Your task to perform on an android device: Go to Yahoo.com Image 0: 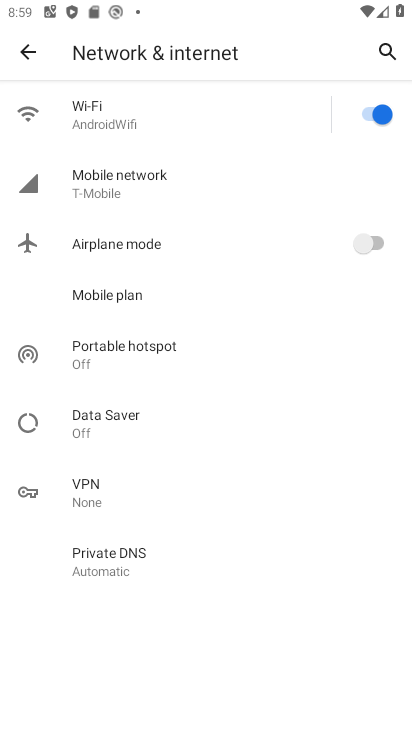
Step 0: press back button
Your task to perform on an android device: Go to Yahoo.com Image 1: 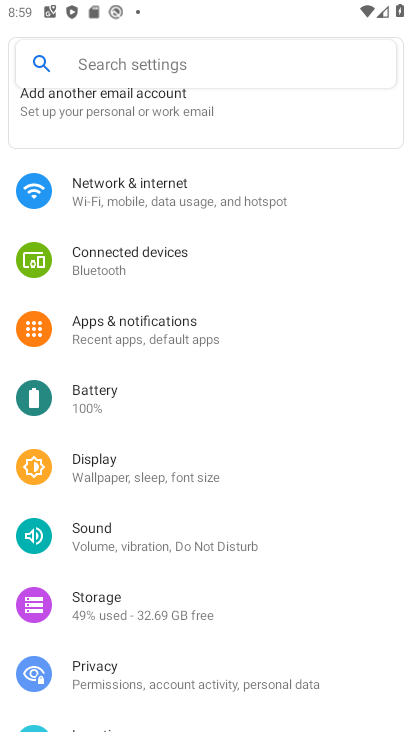
Step 1: press back button
Your task to perform on an android device: Go to Yahoo.com Image 2: 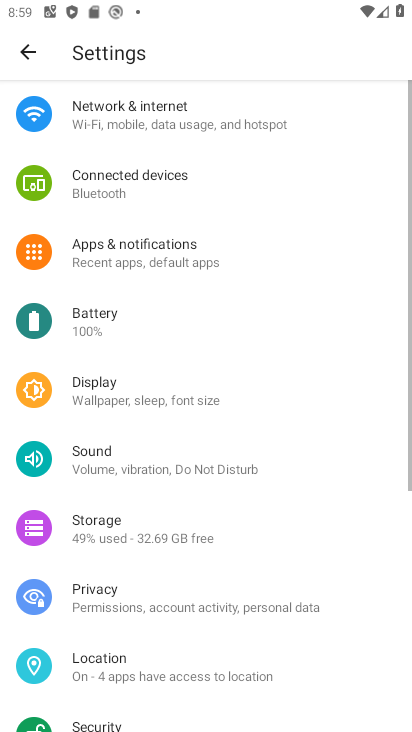
Step 2: press home button
Your task to perform on an android device: Go to Yahoo.com Image 3: 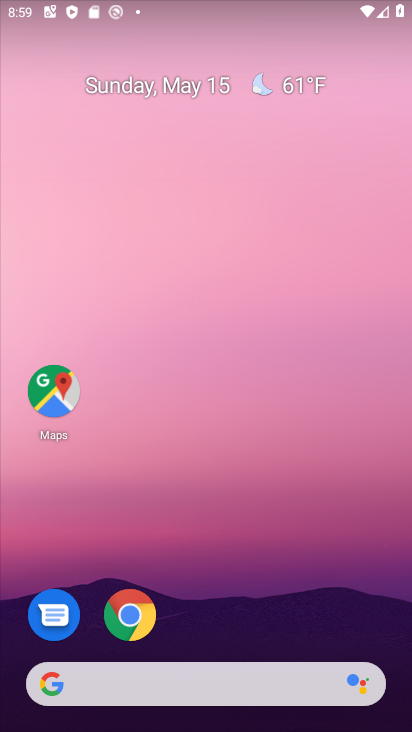
Step 3: drag from (252, 596) to (238, 0)
Your task to perform on an android device: Go to Yahoo.com Image 4: 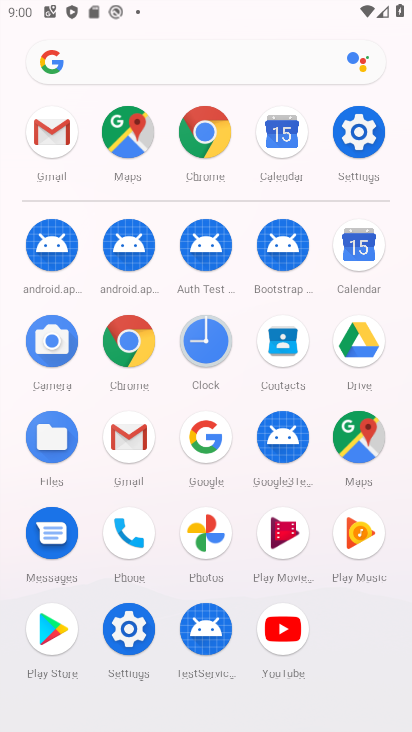
Step 4: click (201, 132)
Your task to perform on an android device: Go to Yahoo.com Image 5: 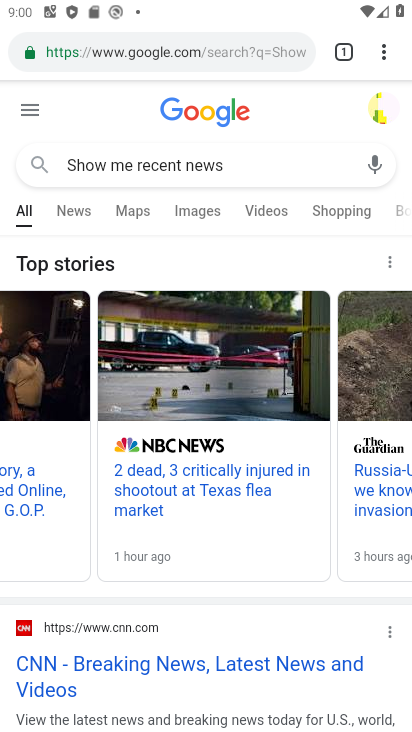
Step 5: click (202, 44)
Your task to perform on an android device: Go to Yahoo.com Image 6: 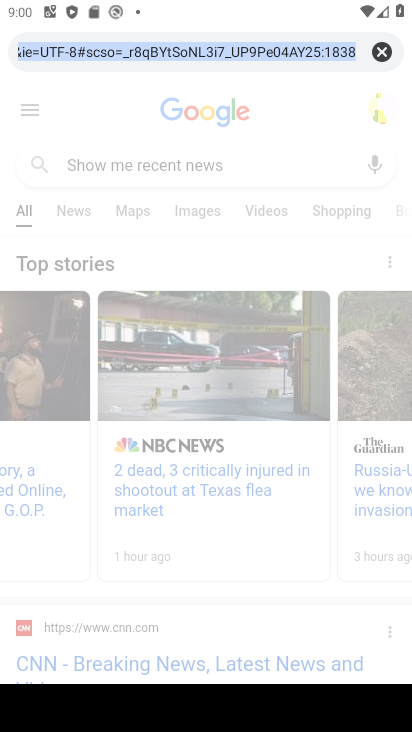
Step 6: click (384, 47)
Your task to perform on an android device: Go to Yahoo.com Image 7: 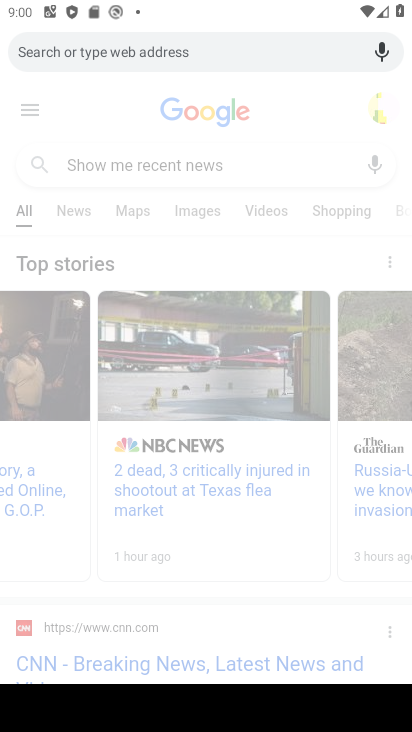
Step 7: type "Yahoo.com"
Your task to perform on an android device: Go to Yahoo.com Image 8: 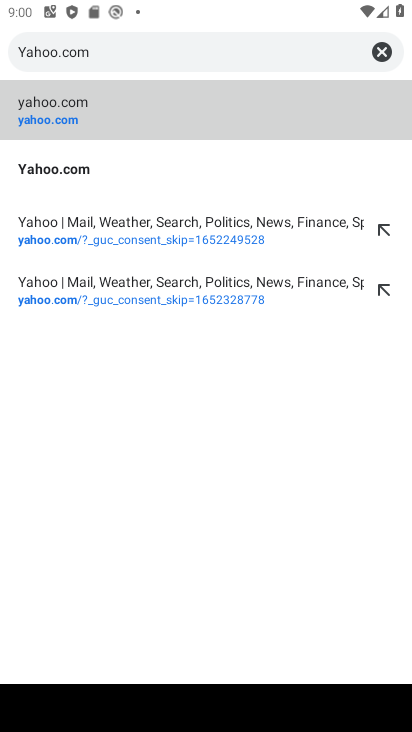
Step 8: click (109, 110)
Your task to perform on an android device: Go to Yahoo.com Image 9: 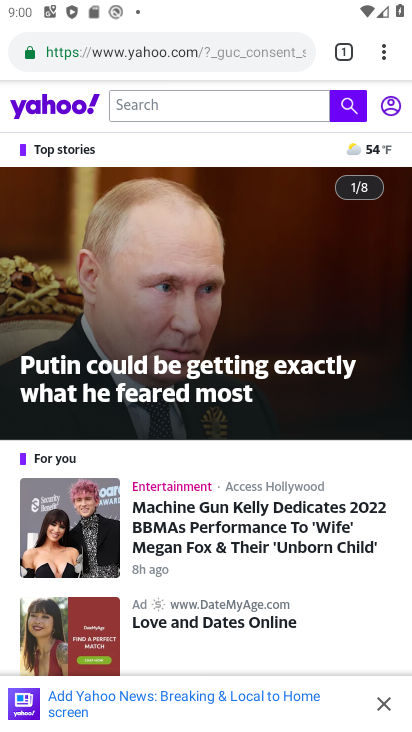
Step 9: task complete